Your task to perform on an android device: What's the weather going to be this weekend? Image 0: 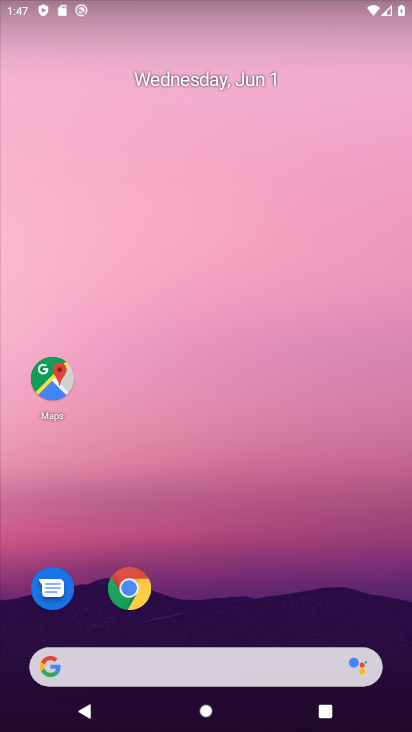
Step 0: drag from (287, 537) to (303, 79)
Your task to perform on an android device: What's the weather going to be this weekend? Image 1: 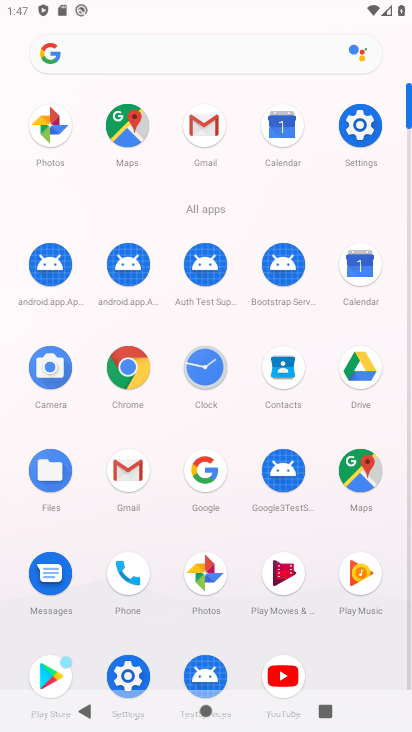
Step 1: click (218, 468)
Your task to perform on an android device: What's the weather going to be this weekend? Image 2: 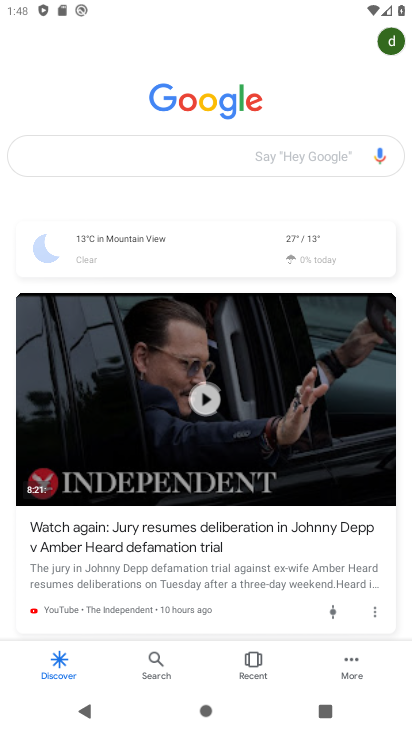
Step 2: click (215, 157)
Your task to perform on an android device: What's the weather going to be this weekend? Image 3: 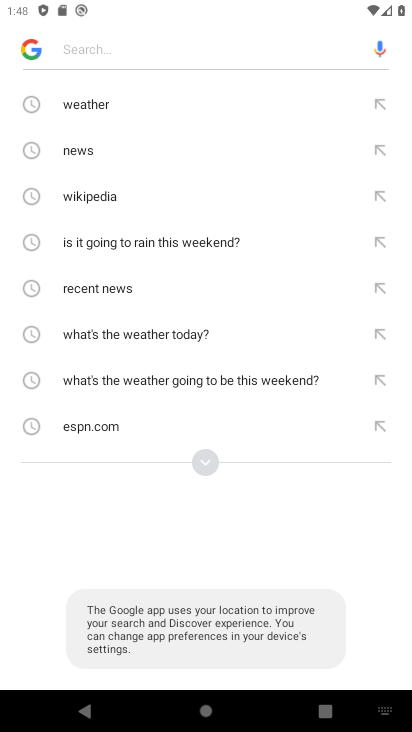
Step 3: click (201, 380)
Your task to perform on an android device: What's the weather going to be this weekend? Image 4: 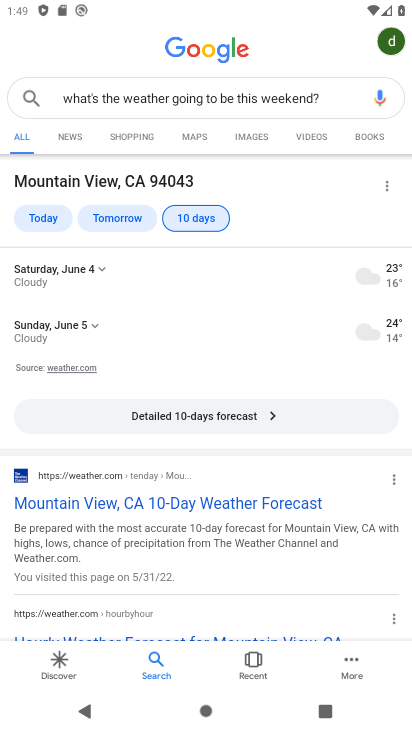
Step 4: task complete